Your task to perform on an android device: Open Google Chrome Image 0: 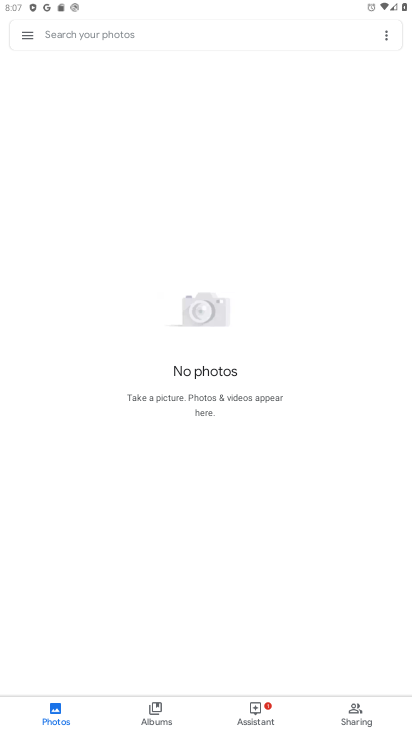
Step 0: press home button
Your task to perform on an android device: Open Google Chrome Image 1: 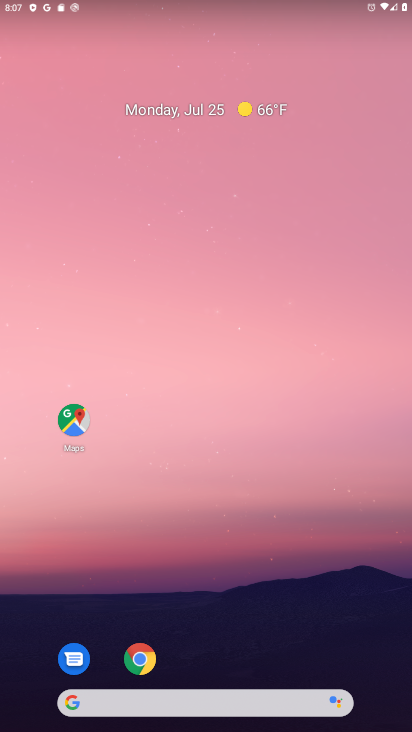
Step 1: click (154, 667)
Your task to perform on an android device: Open Google Chrome Image 2: 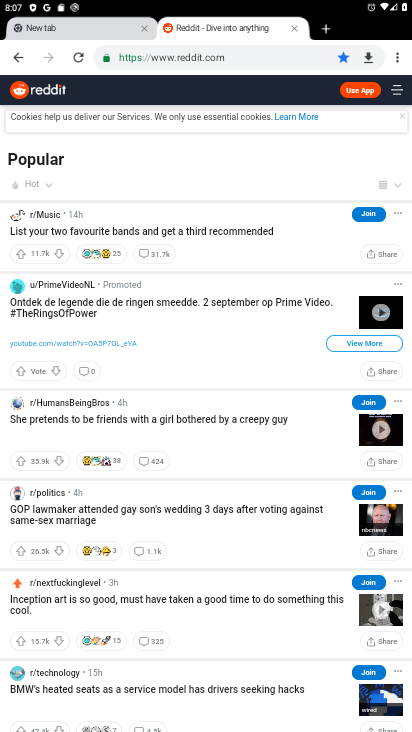
Step 2: task complete